Your task to perform on an android device: change the clock display to digital Image 0: 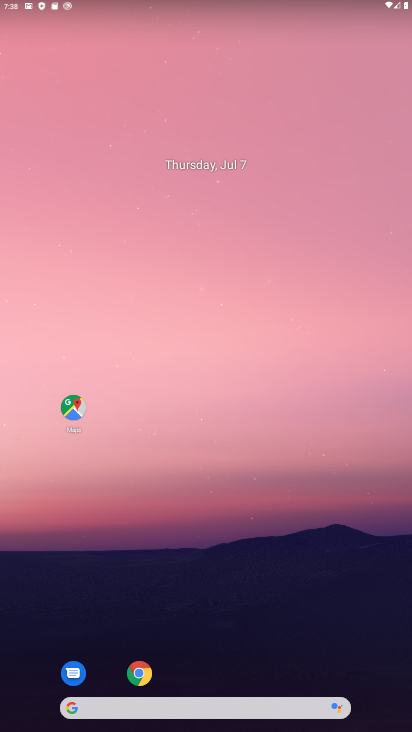
Step 0: drag from (219, 677) to (216, 192)
Your task to perform on an android device: change the clock display to digital Image 1: 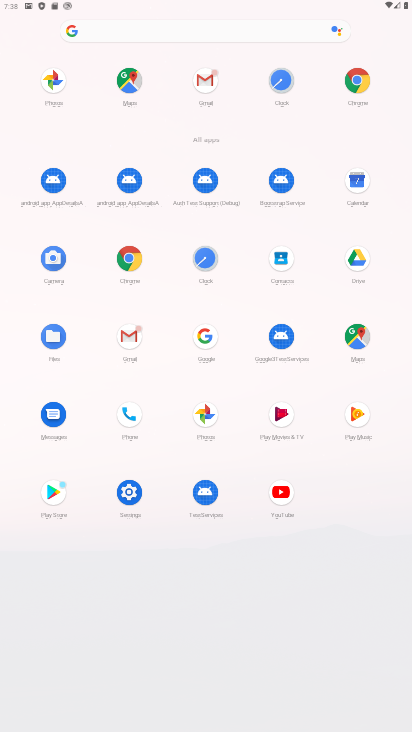
Step 1: click (285, 83)
Your task to perform on an android device: change the clock display to digital Image 2: 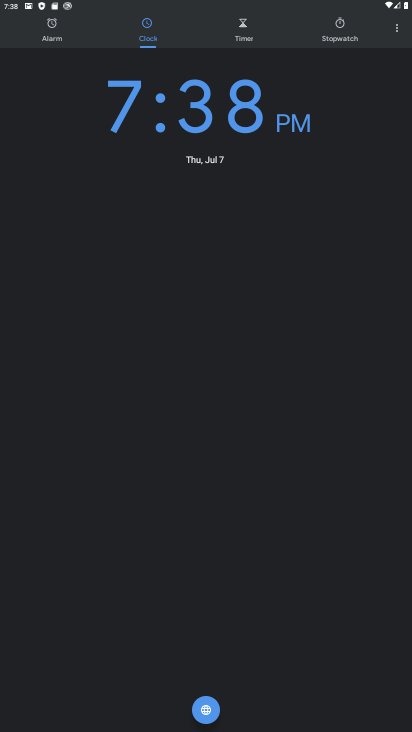
Step 2: click (397, 29)
Your task to perform on an android device: change the clock display to digital Image 3: 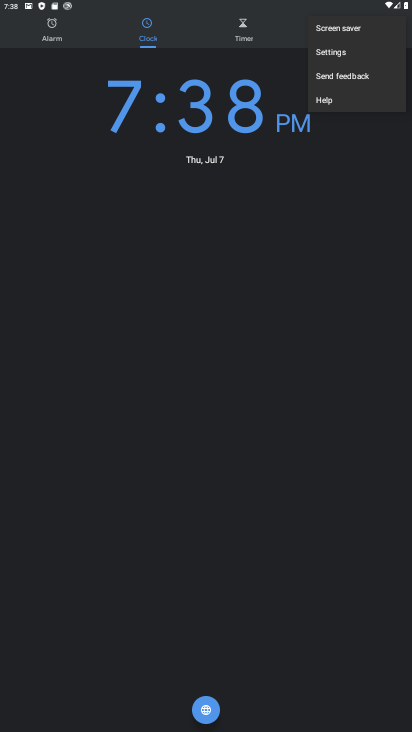
Step 3: click (326, 56)
Your task to perform on an android device: change the clock display to digital Image 4: 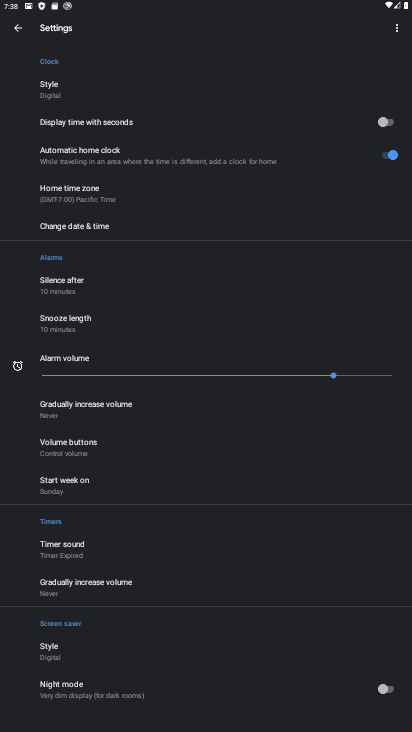
Step 4: click (77, 79)
Your task to perform on an android device: change the clock display to digital Image 5: 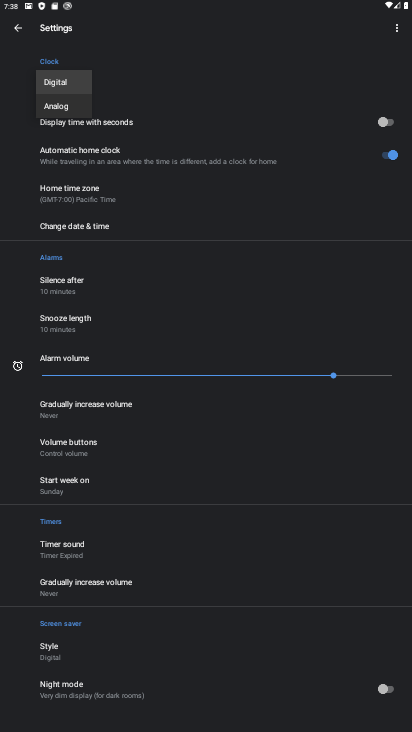
Step 5: task complete